Your task to perform on an android device: Open notification settings Image 0: 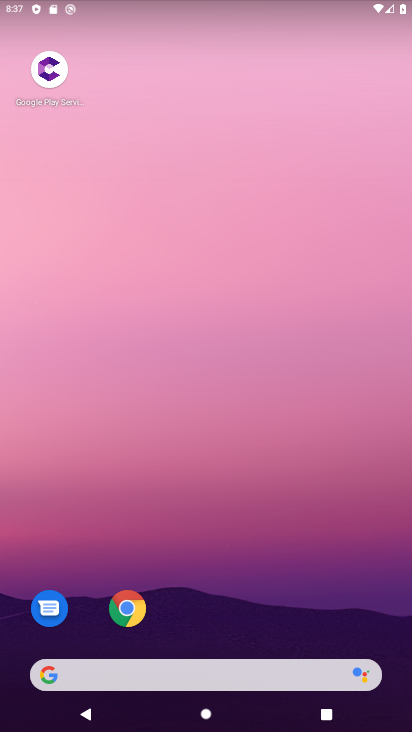
Step 0: drag from (143, 638) to (208, 307)
Your task to perform on an android device: Open notification settings Image 1: 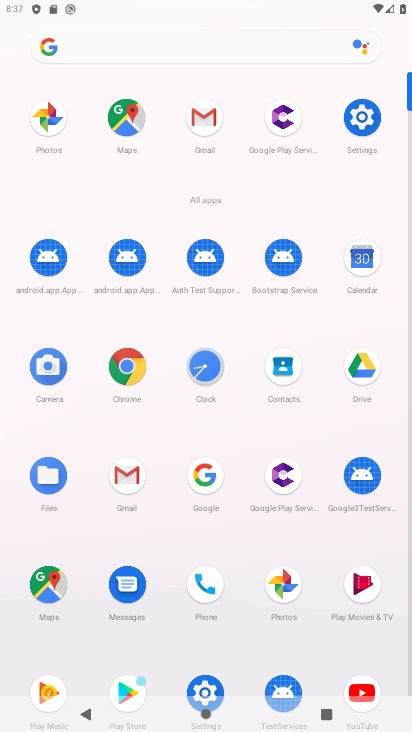
Step 1: click (211, 695)
Your task to perform on an android device: Open notification settings Image 2: 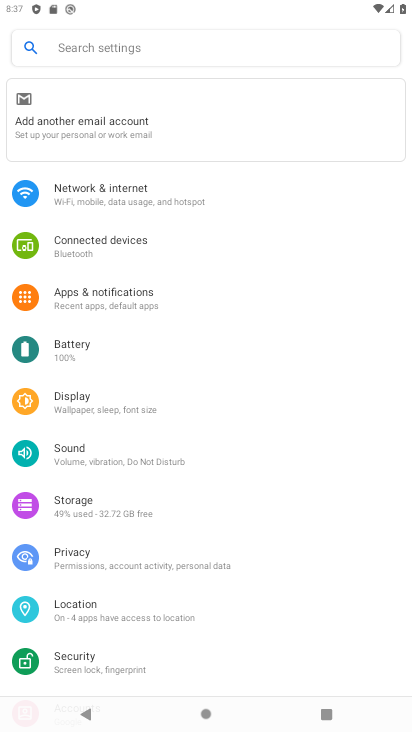
Step 2: click (174, 315)
Your task to perform on an android device: Open notification settings Image 3: 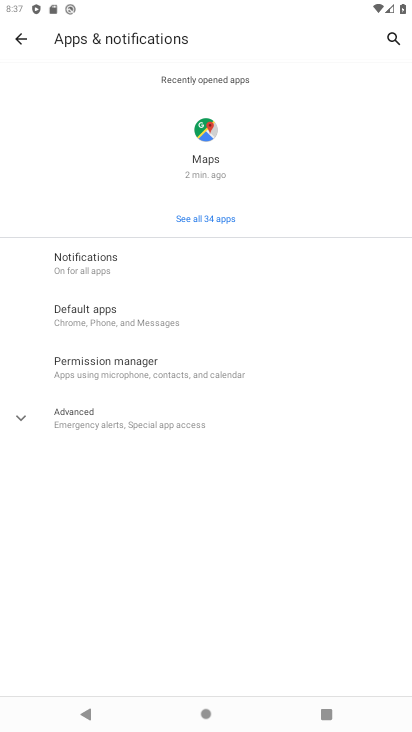
Step 3: click (177, 258)
Your task to perform on an android device: Open notification settings Image 4: 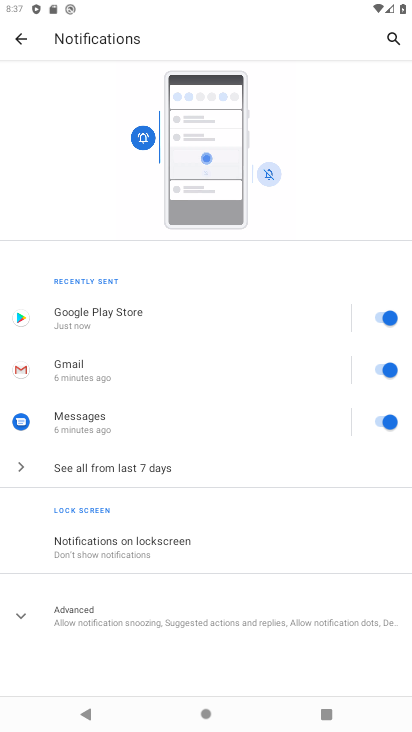
Step 4: task complete